Your task to perform on an android device: remove spam from my inbox in the gmail app Image 0: 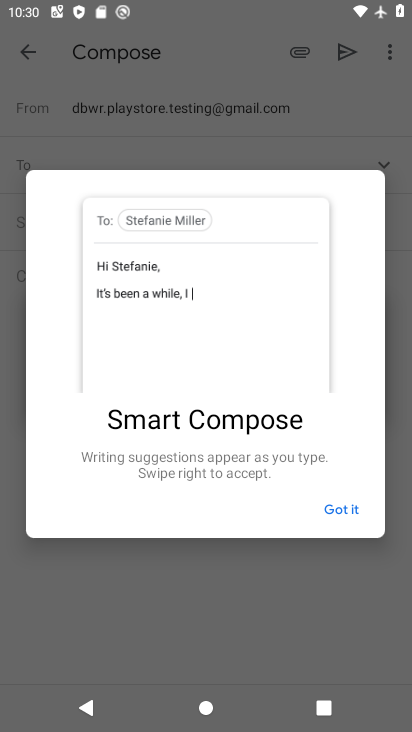
Step 0: press home button
Your task to perform on an android device: remove spam from my inbox in the gmail app Image 1: 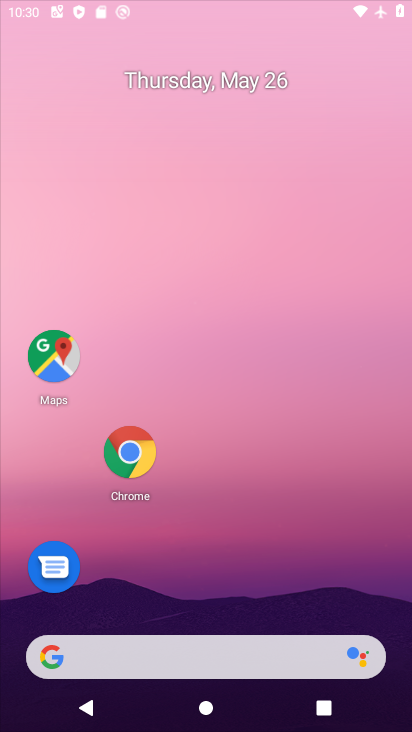
Step 1: press home button
Your task to perform on an android device: remove spam from my inbox in the gmail app Image 2: 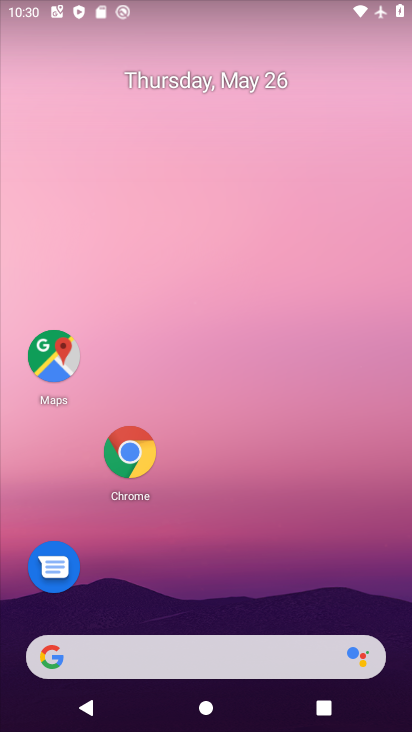
Step 2: drag from (144, 655) to (247, 86)
Your task to perform on an android device: remove spam from my inbox in the gmail app Image 3: 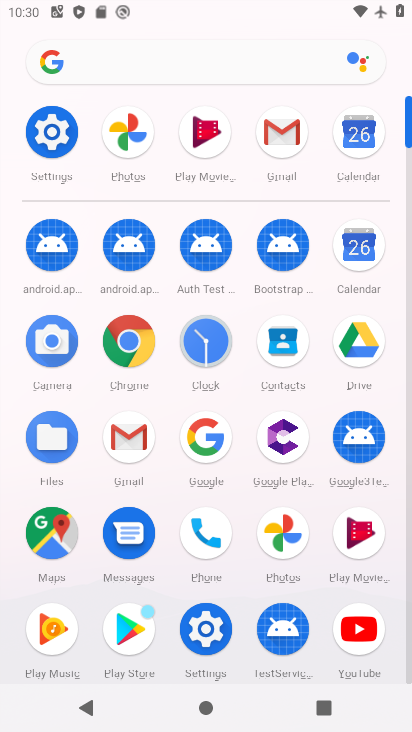
Step 3: click (279, 138)
Your task to perform on an android device: remove spam from my inbox in the gmail app Image 4: 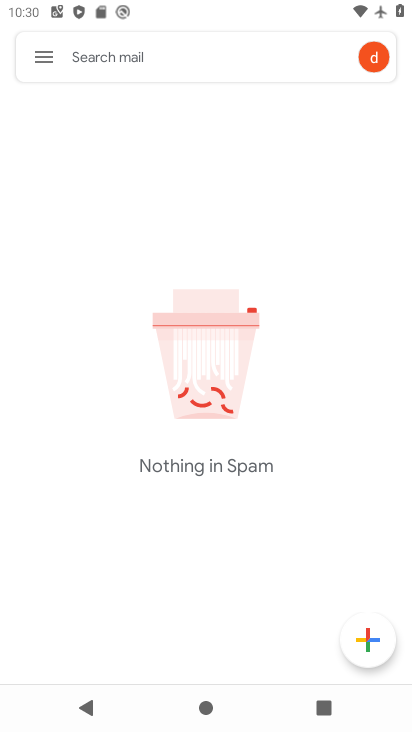
Step 4: click (42, 52)
Your task to perform on an android device: remove spam from my inbox in the gmail app Image 5: 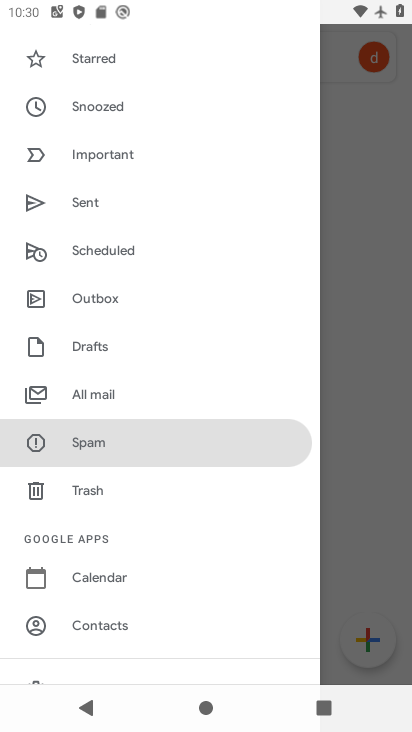
Step 5: click (128, 443)
Your task to perform on an android device: remove spam from my inbox in the gmail app Image 6: 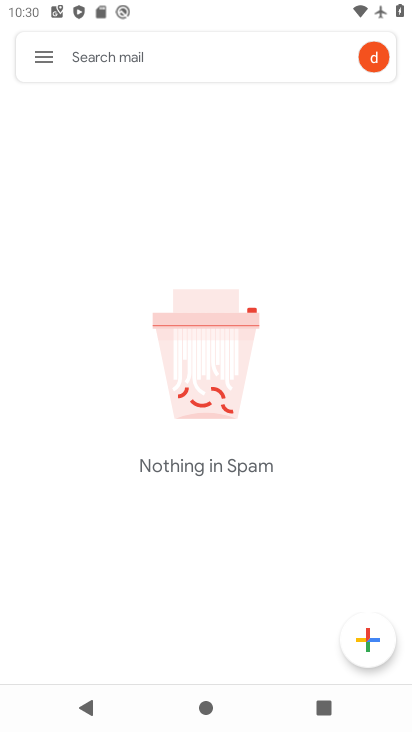
Step 6: task complete